Your task to perform on an android device: Open sound settings Image 0: 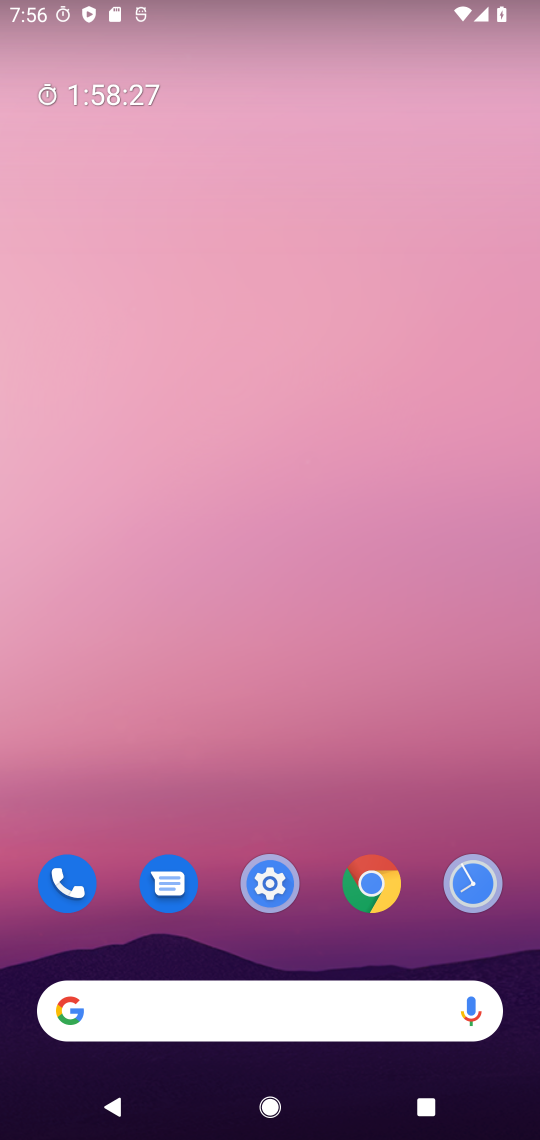
Step 0: click (278, 873)
Your task to perform on an android device: Open sound settings Image 1: 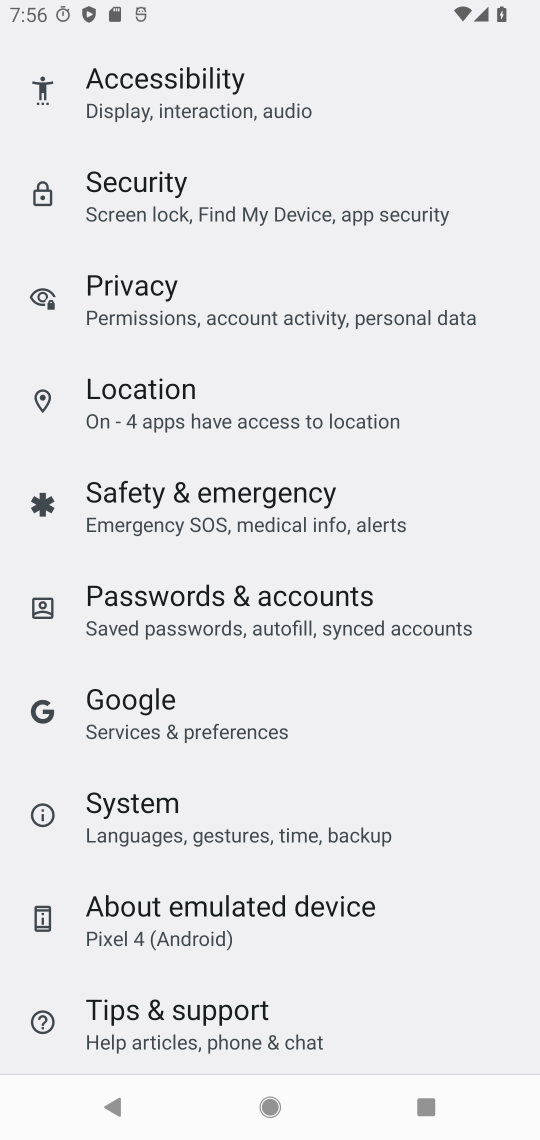
Step 1: drag from (239, 330) to (307, 898)
Your task to perform on an android device: Open sound settings Image 2: 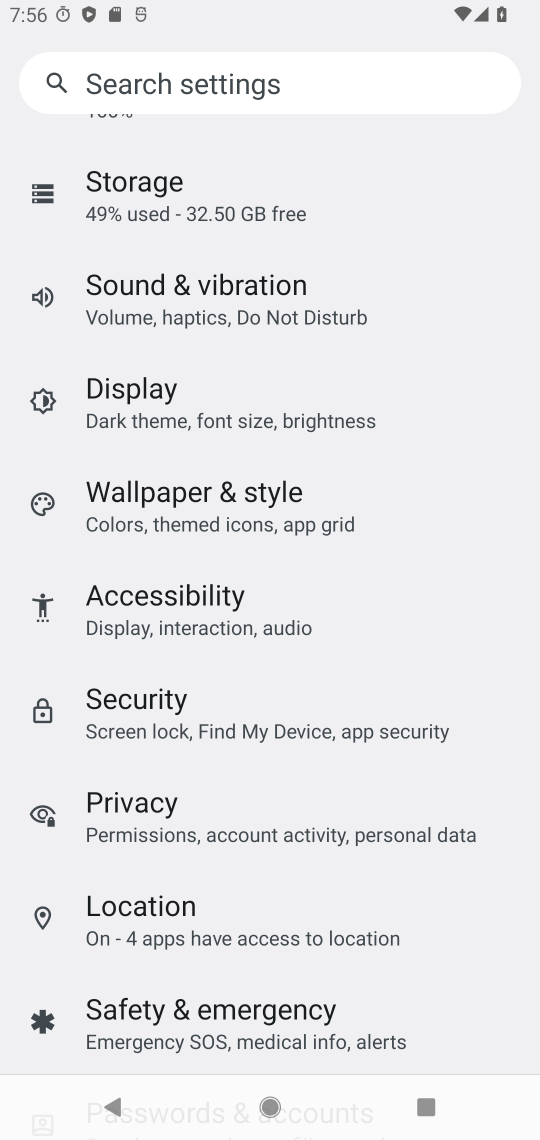
Step 2: click (167, 302)
Your task to perform on an android device: Open sound settings Image 3: 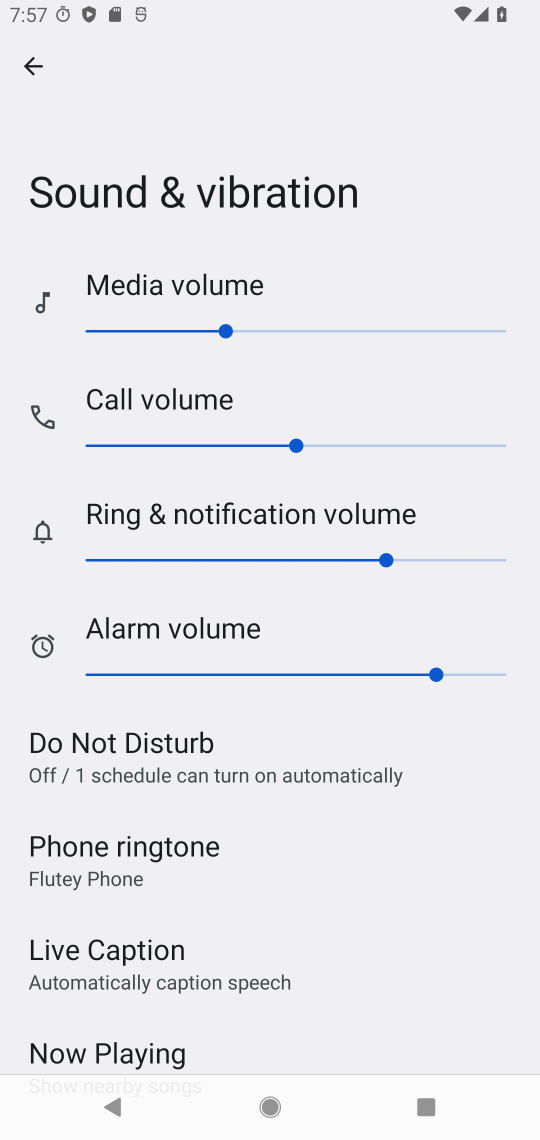
Step 3: task complete